Your task to perform on an android device: Go to accessibility settings Image 0: 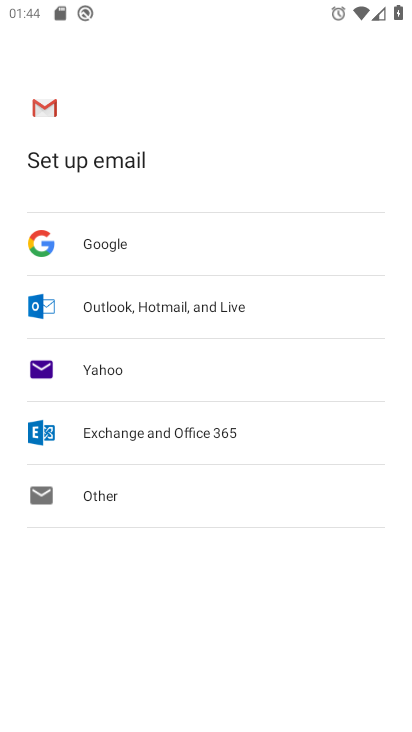
Step 0: press home button
Your task to perform on an android device: Go to accessibility settings Image 1: 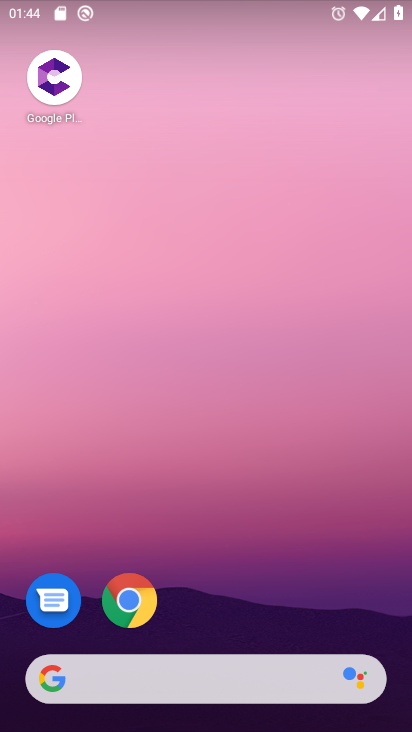
Step 1: drag from (264, 581) to (322, 110)
Your task to perform on an android device: Go to accessibility settings Image 2: 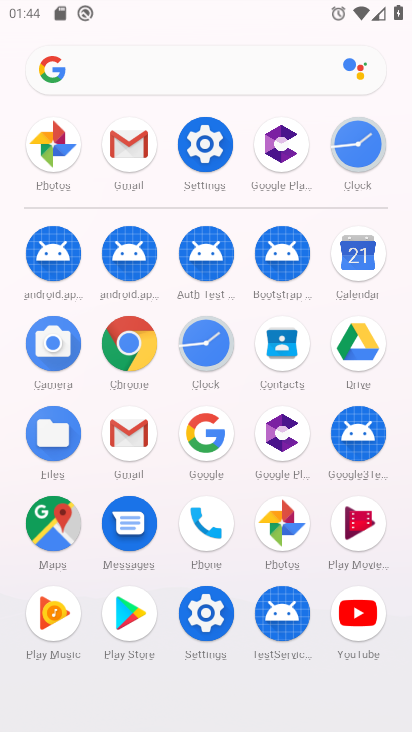
Step 2: click (210, 609)
Your task to perform on an android device: Go to accessibility settings Image 3: 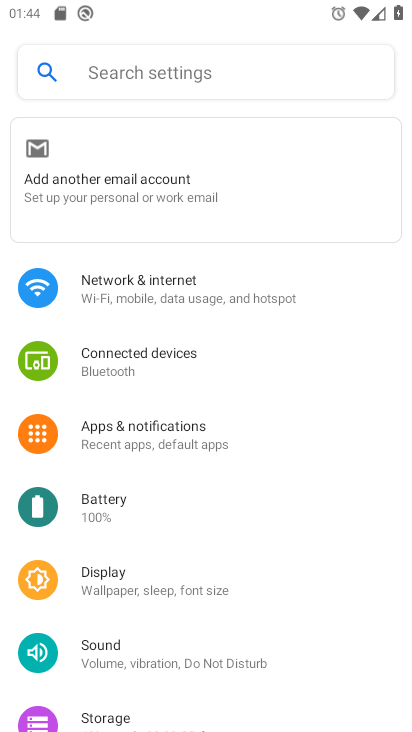
Step 3: drag from (270, 562) to (291, 95)
Your task to perform on an android device: Go to accessibility settings Image 4: 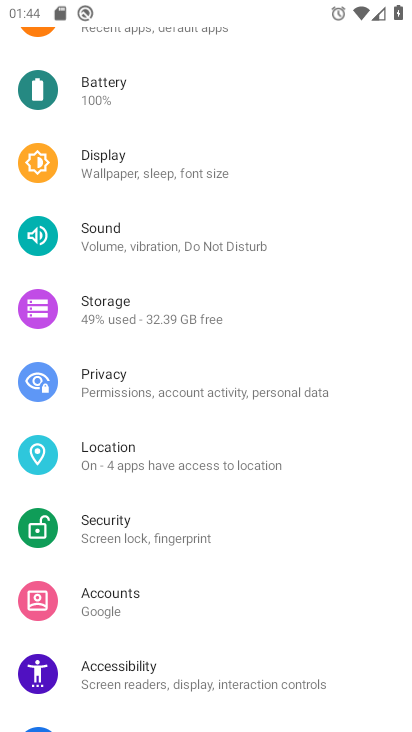
Step 4: click (155, 679)
Your task to perform on an android device: Go to accessibility settings Image 5: 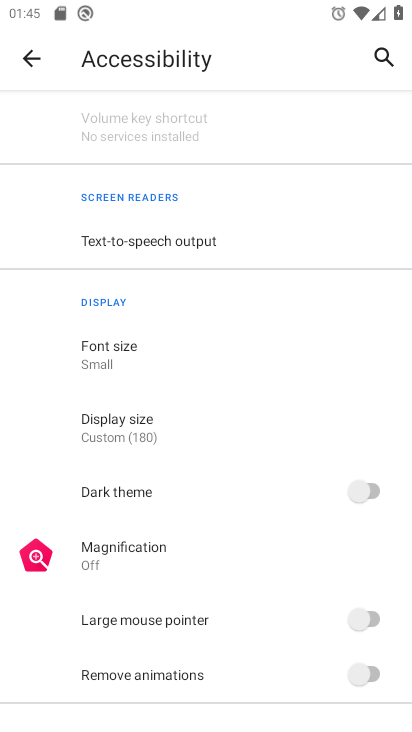
Step 5: task complete